Your task to perform on an android device: Open calendar and show me the fourth week of next month Image 0: 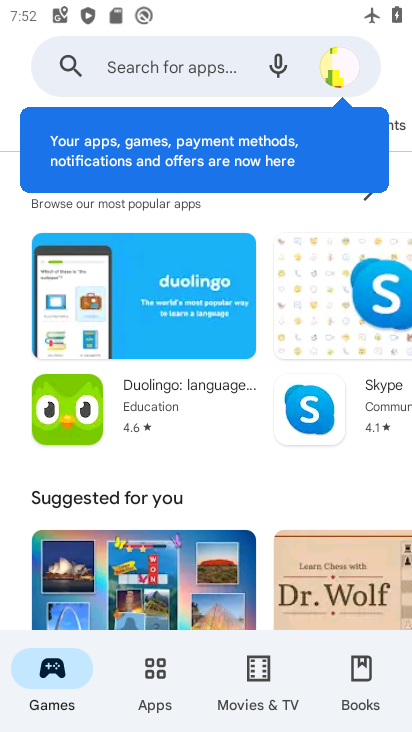
Step 0: press home button
Your task to perform on an android device: Open calendar and show me the fourth week of next month Image 1: 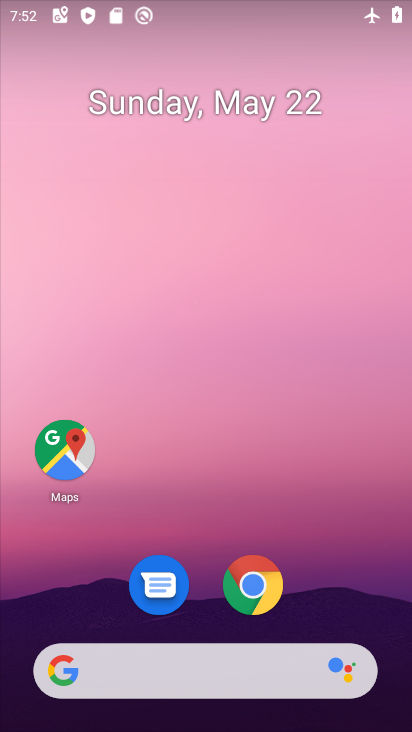
Step 1: drag from (168, 211) to (142, 68)
Your task to perform on an android device: Open calendar and show me the fourth week of next month Image 2: 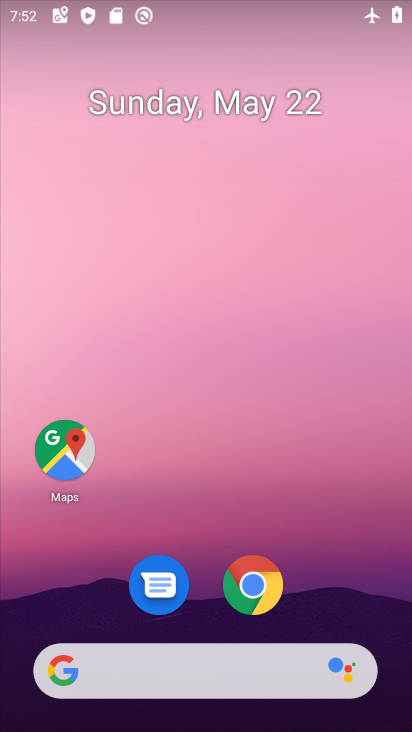
Step 2: drag from (348, 514) to (349, 19)
Your task to perform on an android device: Open calendar and show me the fourth week of next month Image 3: 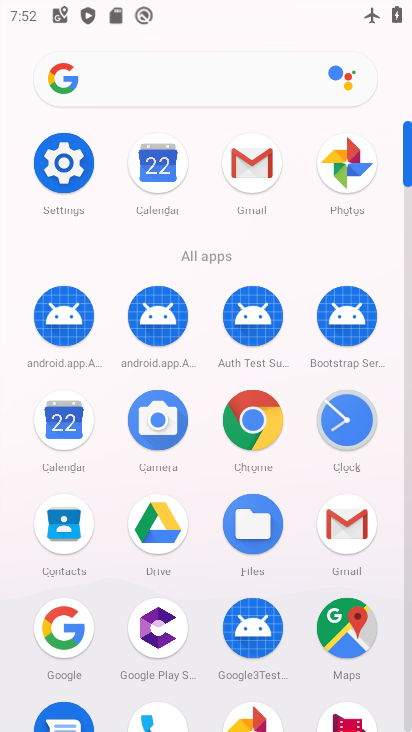
Step 3: click (159, 171)
Your task to perform on an android device: Open calendar and show me the fourth week of next month Image 4: 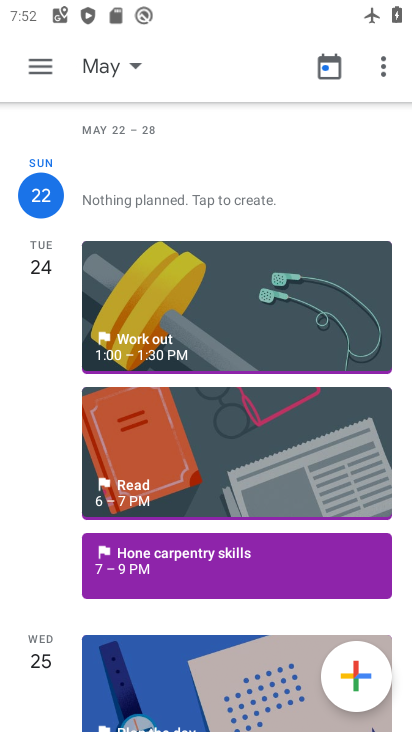
Step 4: click (44, 64)
Your task to perform on an android device: Open calendar and show me the fourth week of next month Image 5: 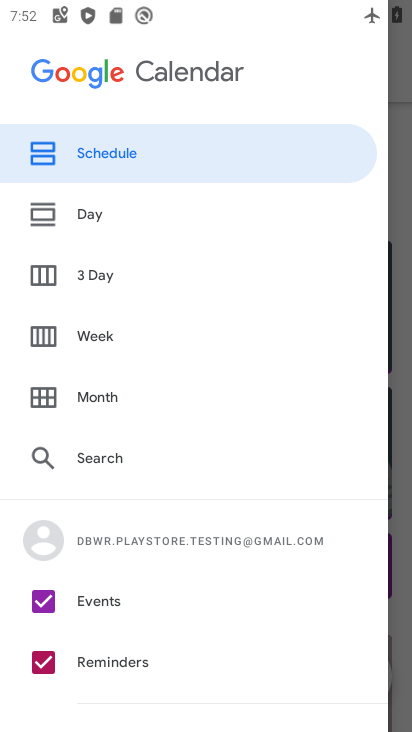
Step 5: click (52, 392)
Your task to perform on an android device: Open calendar and show me the fourth week of next month Image 6: 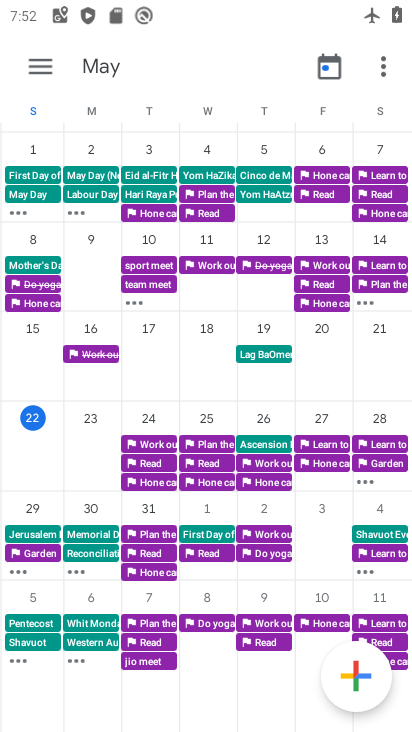
Step 6: drag from (346, 368) to (2, 414)
Your task to perform on an android device: Open calendar and show me the fourth week of next month Image 7: 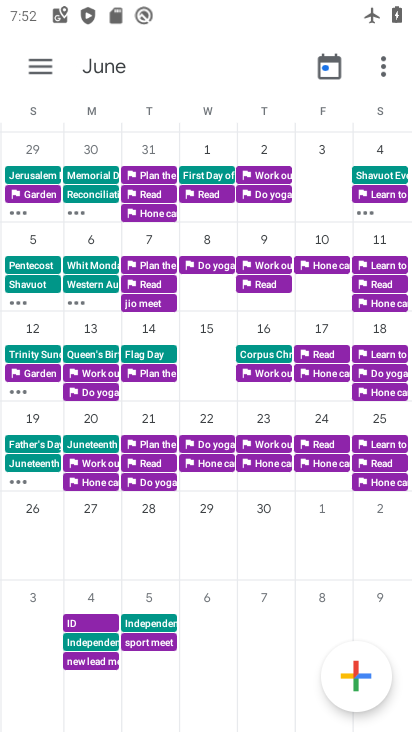
Step 7: click (40, 508)
Your task to perform on an android device: Open calendar and show me the fourth week of next month Image 8: 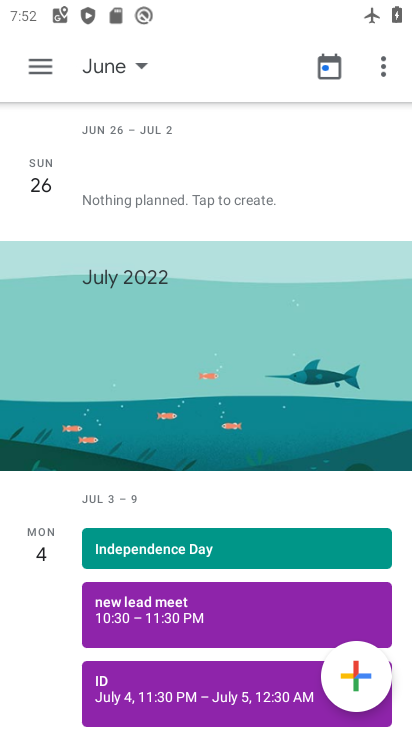
Step 8: click (38, 61)
Your task to perform on an android device: Open calendar and show me the fourth week of next month Image 9: 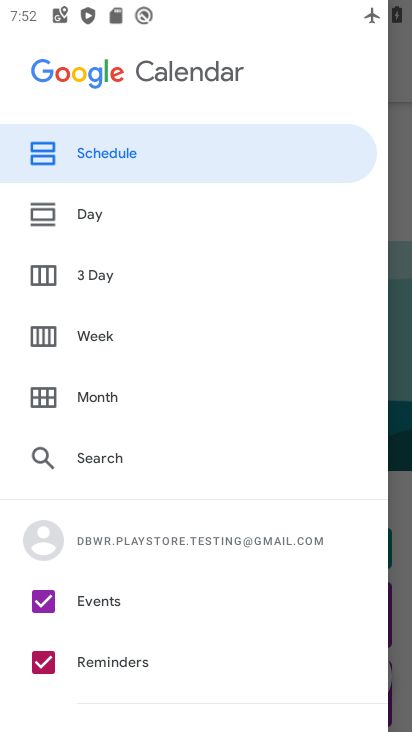
Step 9: click (97, 329)
Your task to perform on an android device: Open calendar and show me the fourth week of next month Image 10: 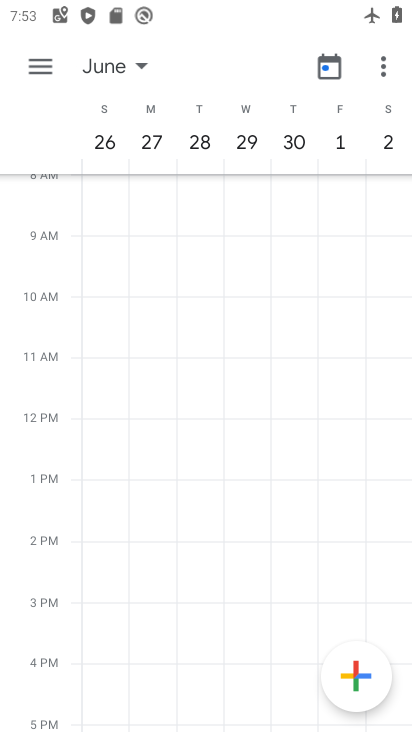
Step 10: task complete